Your task to perform on an android device: turn on translation in the chrome app Image 0: 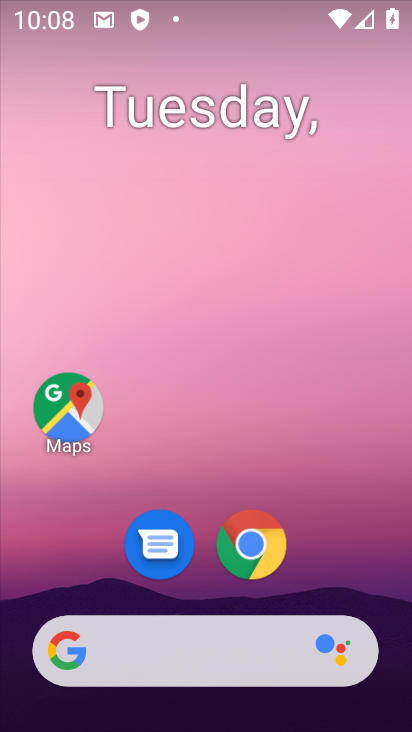
Step 0: click (247, 532)
Your task to perform on an android device: turn on translation in the chrome app Image 1: 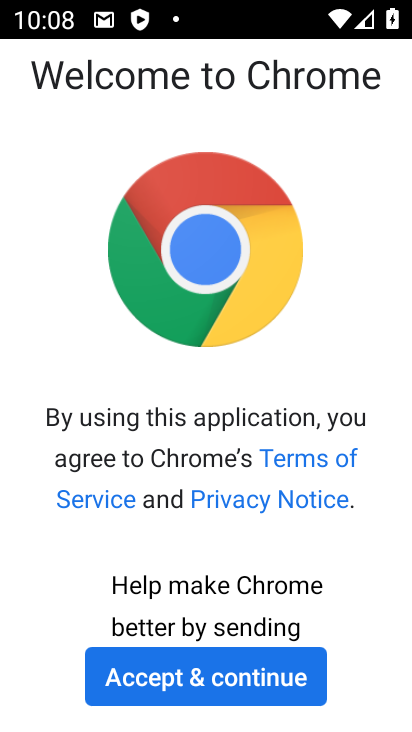
Step 1: click (245, 683)
Your task to perform on an android device: turn on translation in the chrome app Image 2: 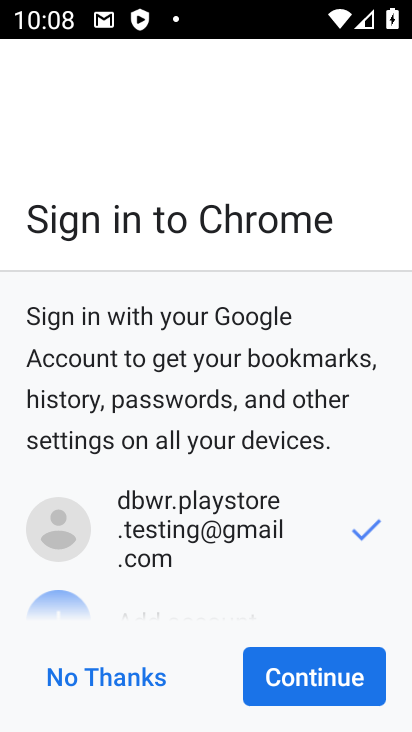
Step 2: click (291, 679)
Your task to perform on an android device: turn on translation in the chrome app Image 3: 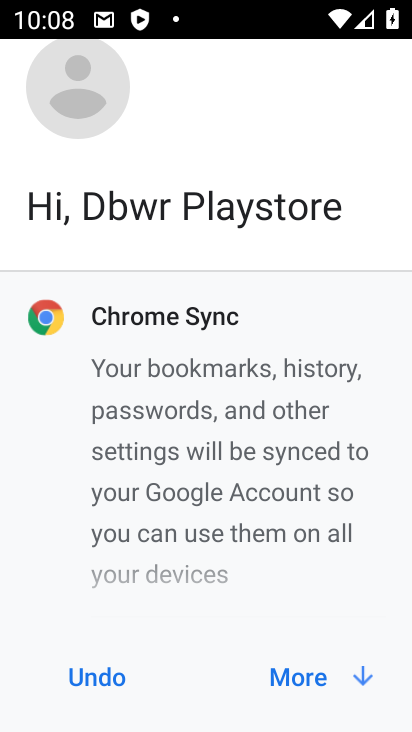
Step 3: click (291, 679)
Your task to perform on an android device: turn on translation in the chrome app Image 4: 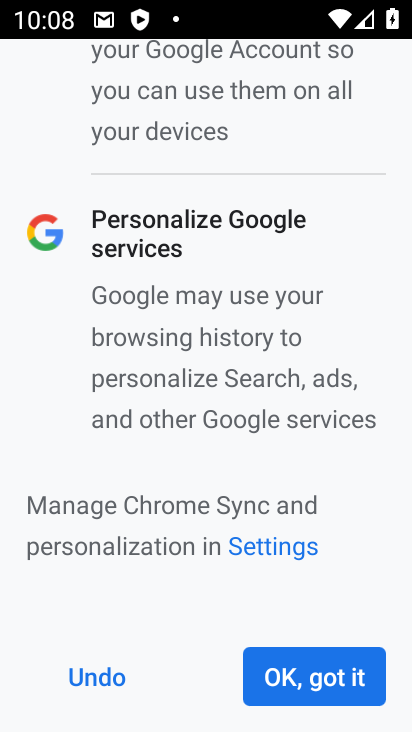
Step 4: click (291, 679)
Your task to perform on an android device: turn on translation in the chrome app Image 5: 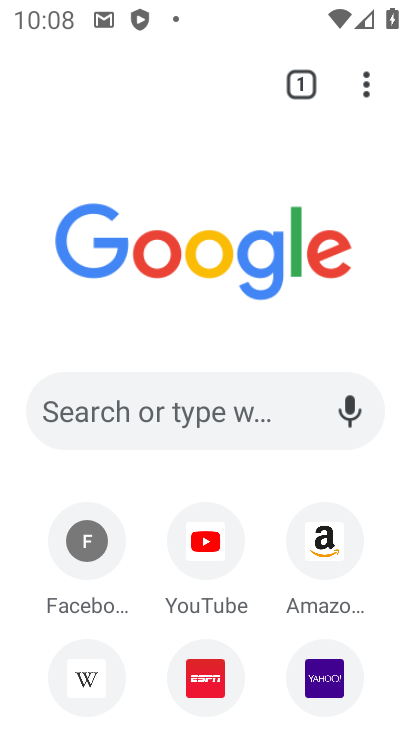
Step 5: click (368, 84)
Your task to perform on an android device: turn on translation in the chrome app Image 6: 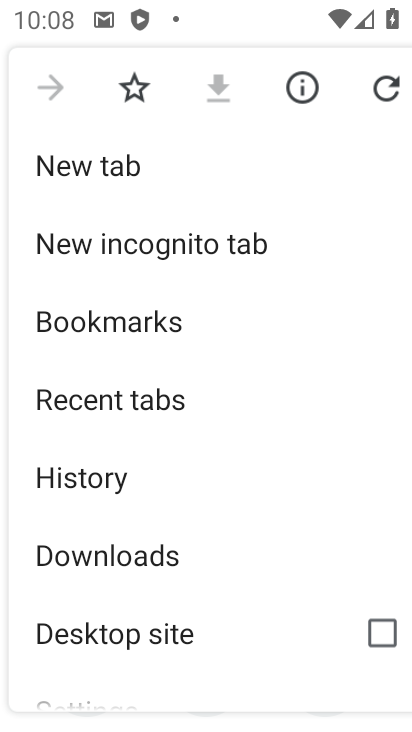
Step 6: drag from (220, 661) to (176, 180)
Your task to perform on an android device: turn on translation in the chrome app Image 7: 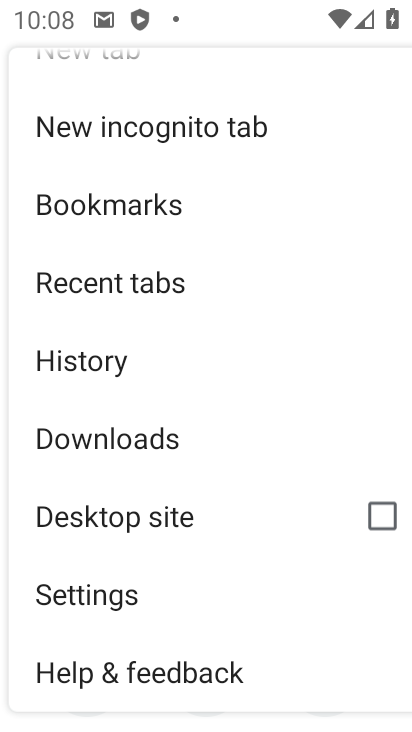
Step 7: click (165, 601)
Your task to perform on an android device: turn on translation in the chrome app Image 8: 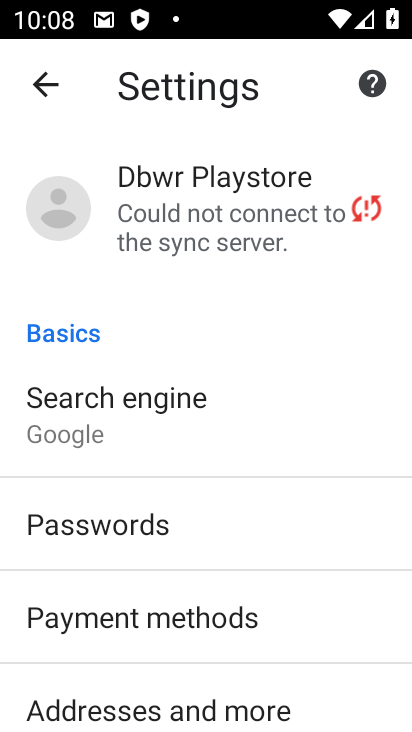
Step 8: drag from (316, 690) to (268, 134)
Your task to perform on an android device: turn on translation in the chrome app Image 9: 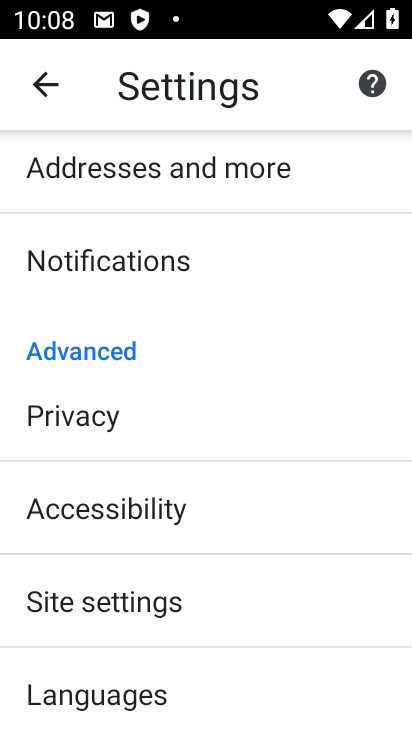
Step 9: drag from (335, 681) to (283, 375)
Your task to perform on an android device: turn on translation in the chrome app Image 10: 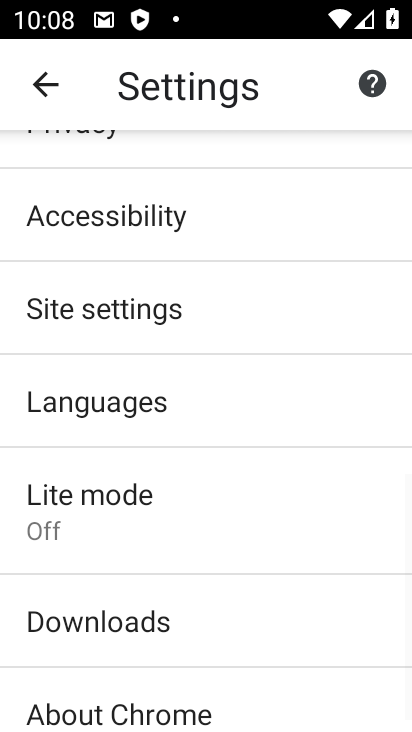
Step 10: click (280, 407)
Your task to perform on an android device: turn on translation in the chrome app Image 11: 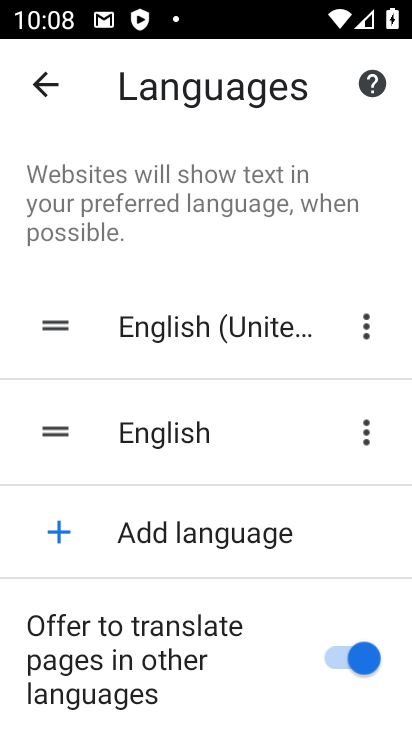
Step 11: task complete